Your task to perform on an android device: Search for "razer blade" on ebay.com, select the first entry, add it to the cart, then select checkout. Image 0: 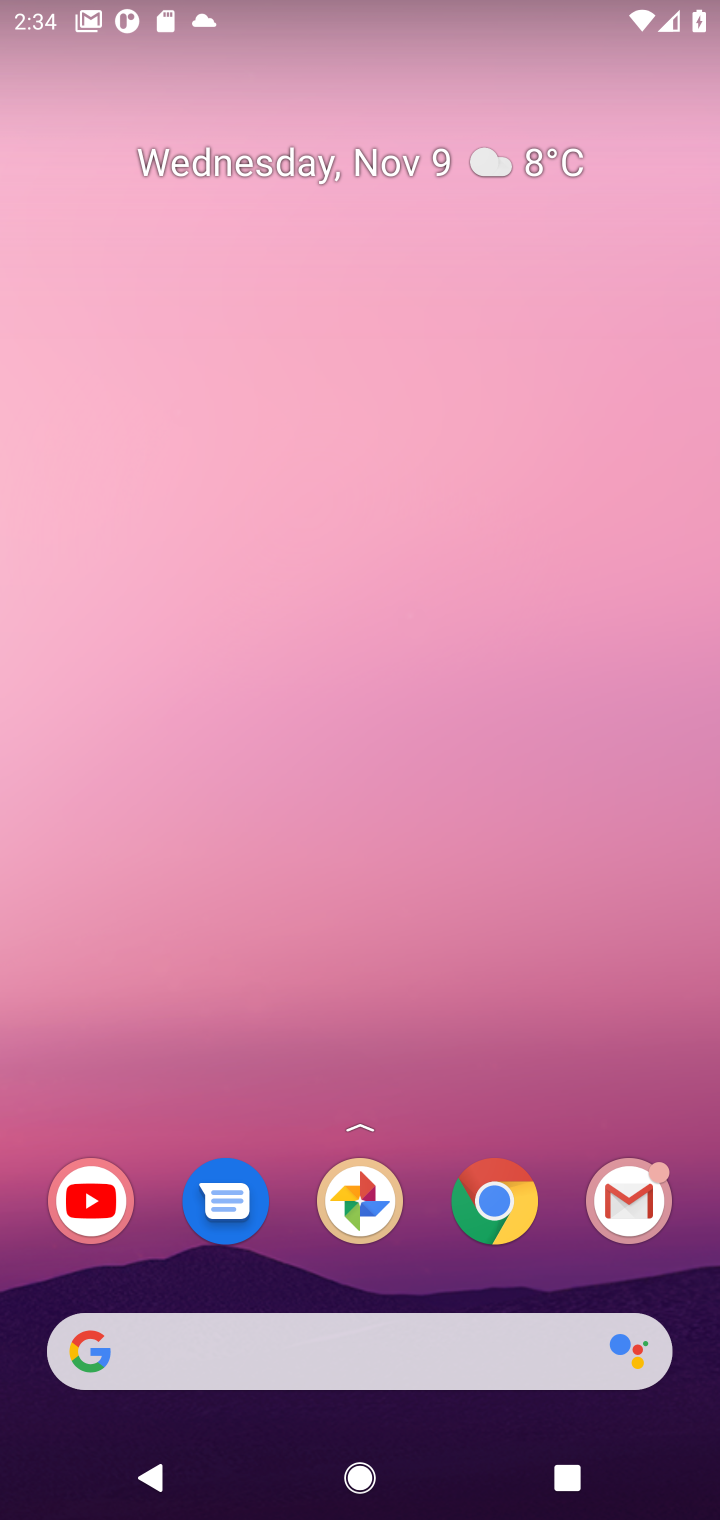
Step 0: press home button
Your task to perform on an android device: Search for "razer blade" on ebay.com, select the first entry, add it to the cart, then select checkout. Image 1: 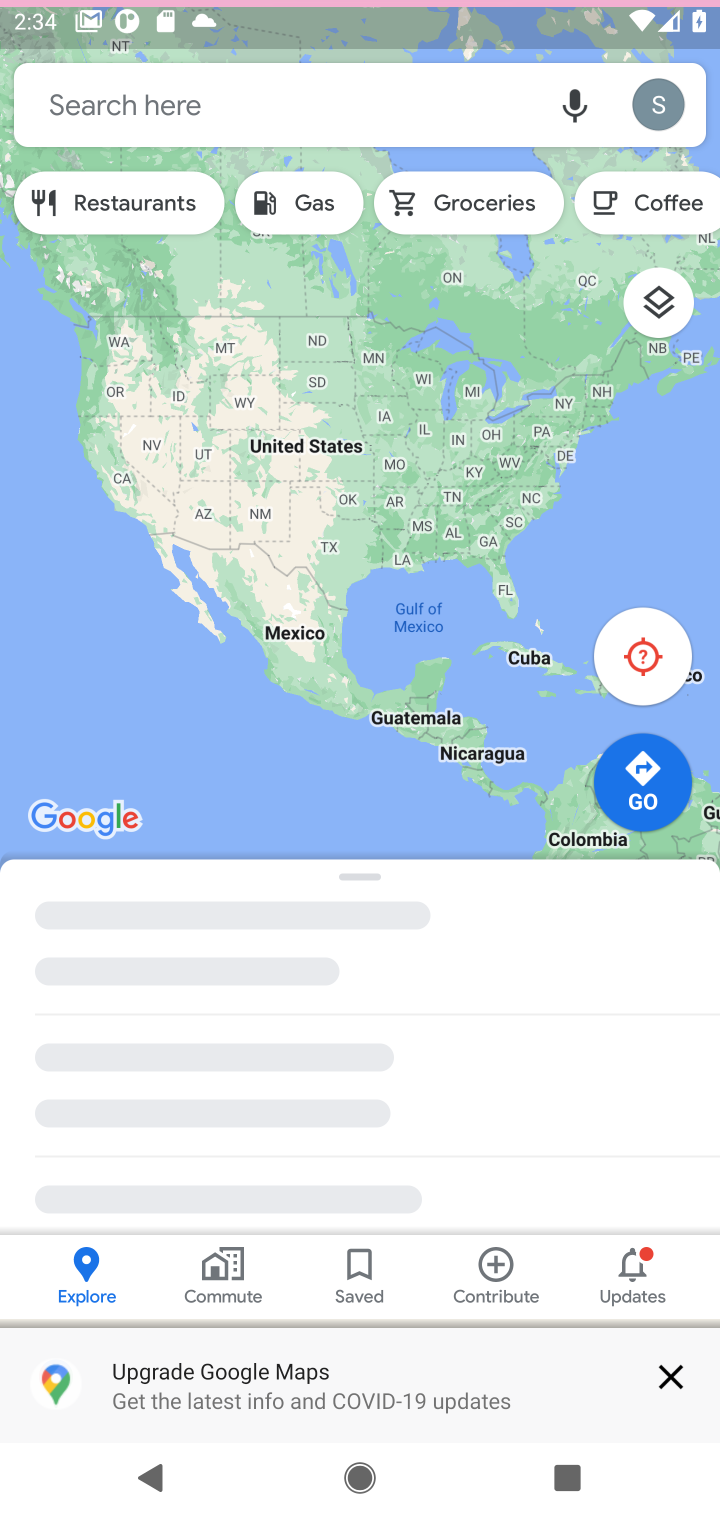
Step 1: press home button
Your task to perform on an android device: Search for "razer blade" on ebay.com, select the first entry, add it to the cart, then select checkout. Image 2: 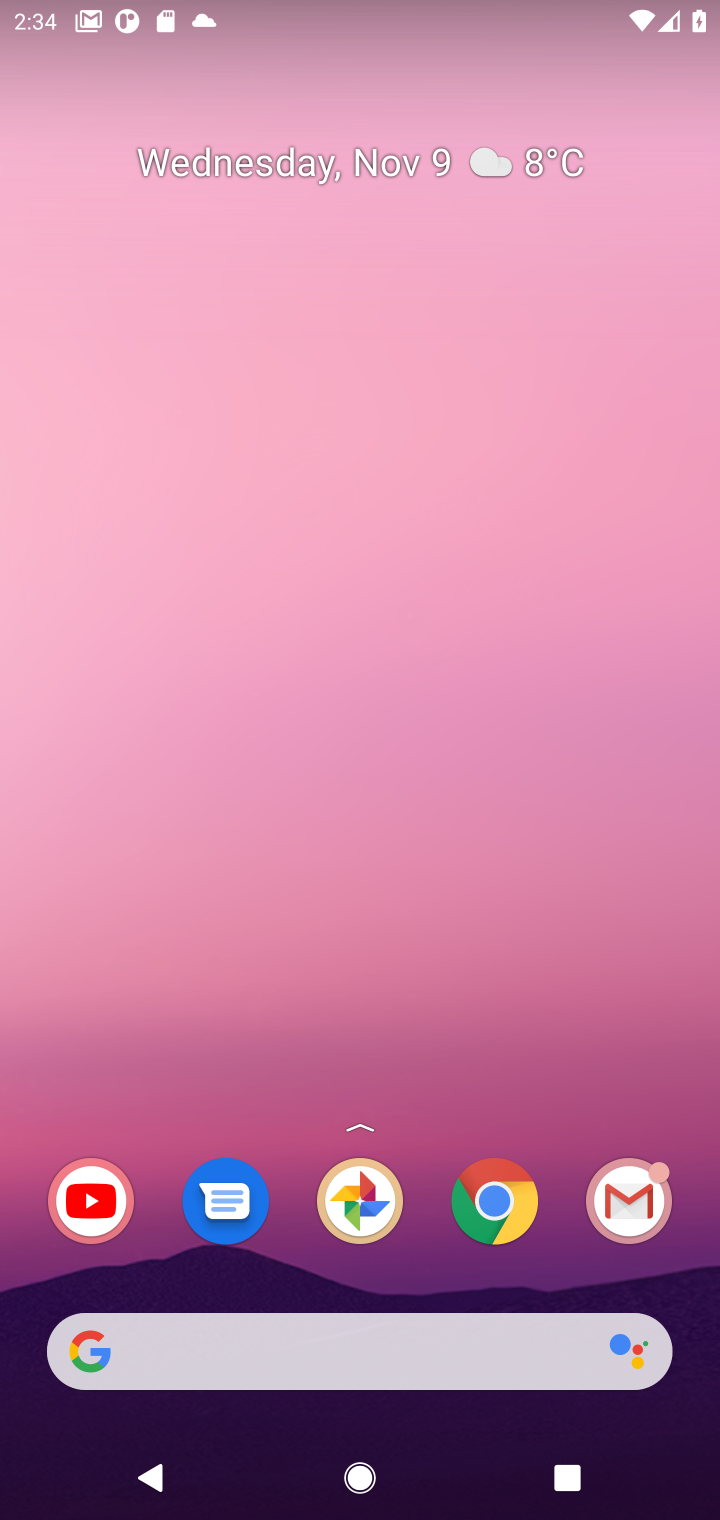
Step 2: click (308, 1348)
Your task to perform on an android device: Search for "razer blade" on ebay.com, select the first entry, add it to the cart, then select checkout. Image 3: 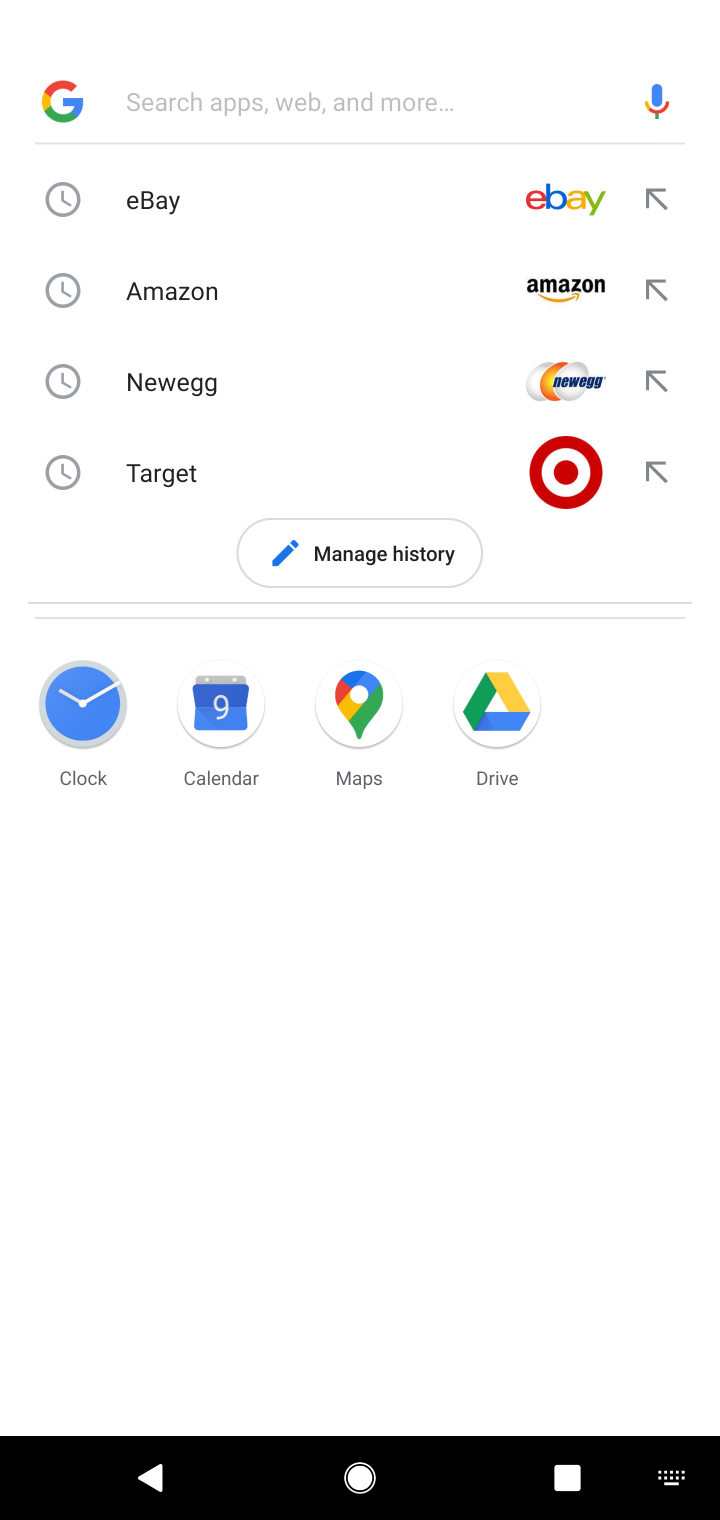
Step 3: click (235, 206)
Your task to perform on an android device: Search for "razer blade" on ebay.com, select the first entry, add it to the cart, then select checkout. Image 4: 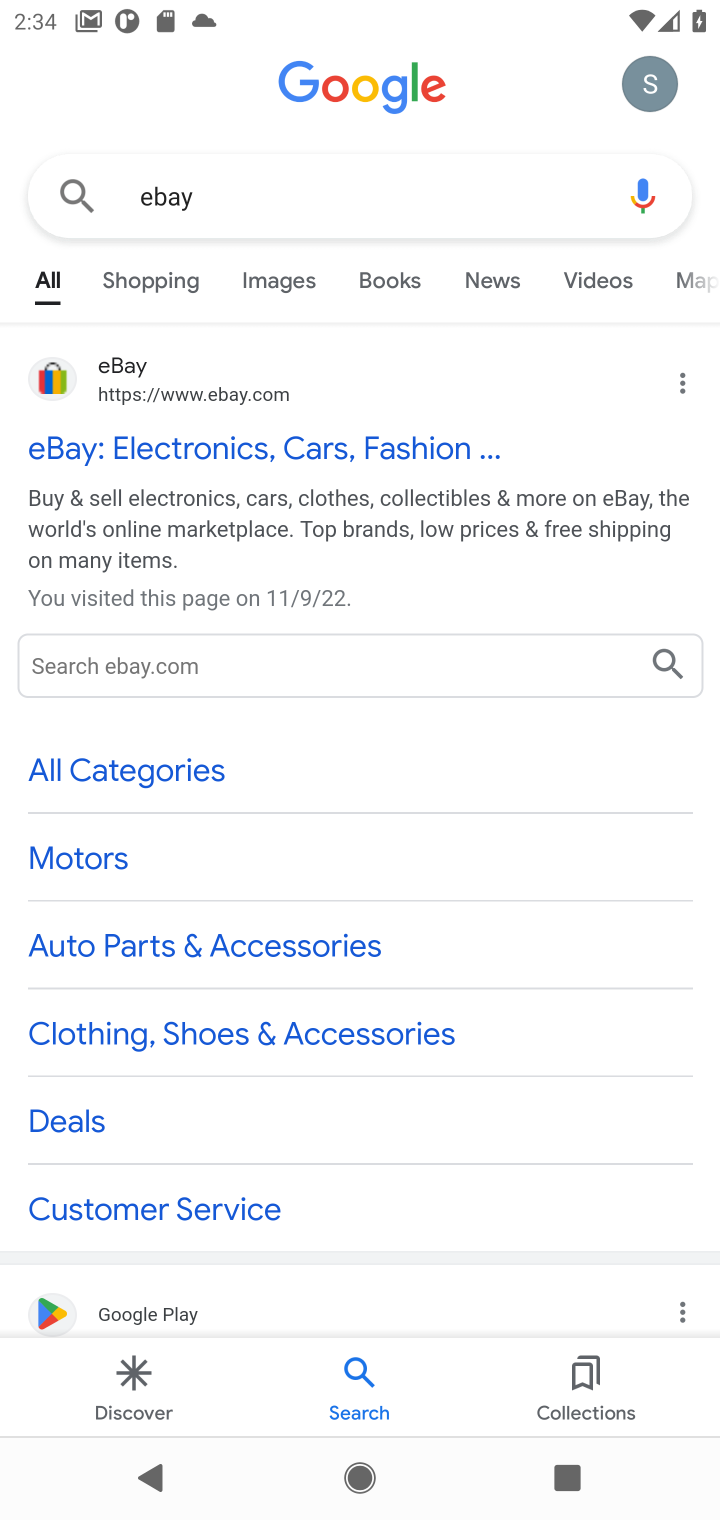
Step 4: click (94, 376)
Your task to perform on an android device: Search for "razer blade" on ebay.com, select the first entry, add it to the cart, then select checkout. Image 5: 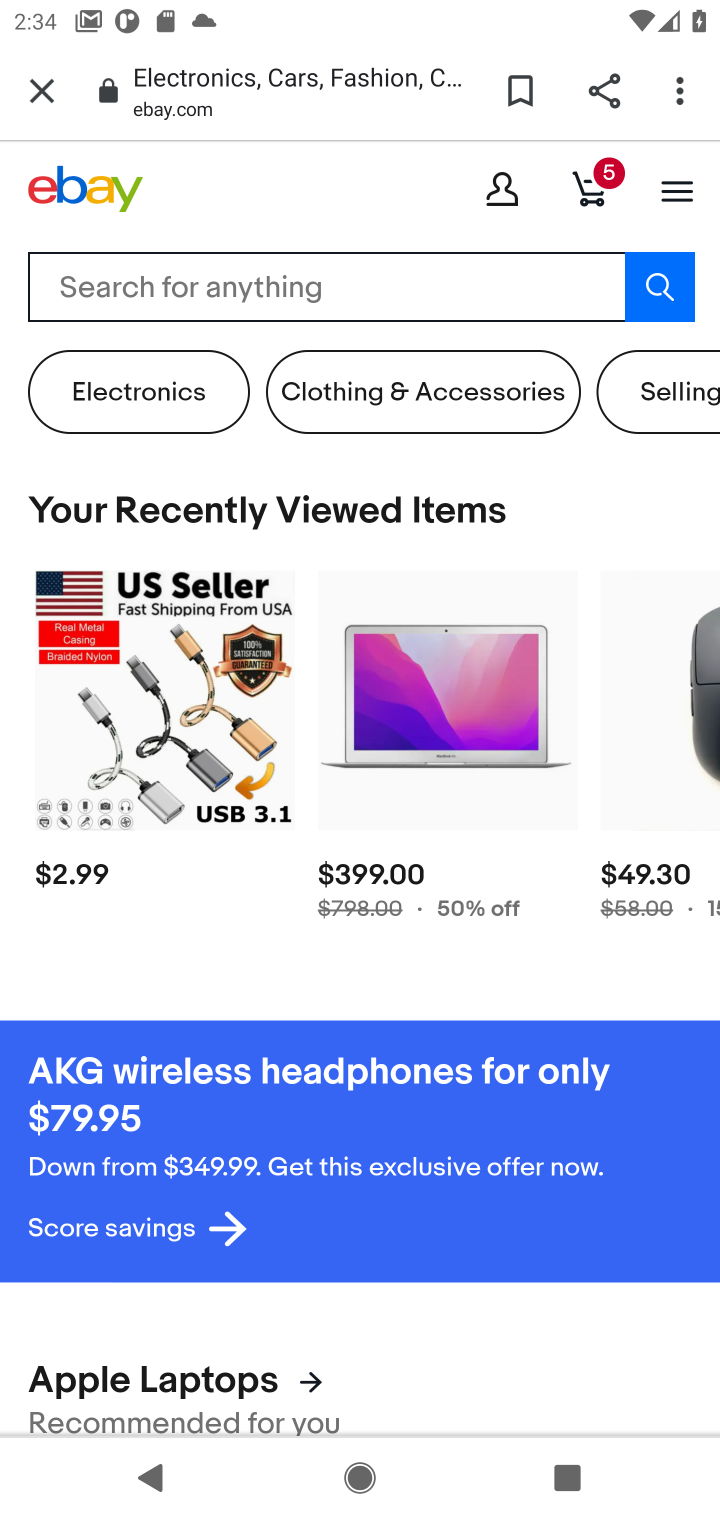
Step 5: click (204, 306)
Your task to perform on an android device: Search for "razer blade" on ebay.com, select the first entry, add it to the cart, then select checkout. Image 6: 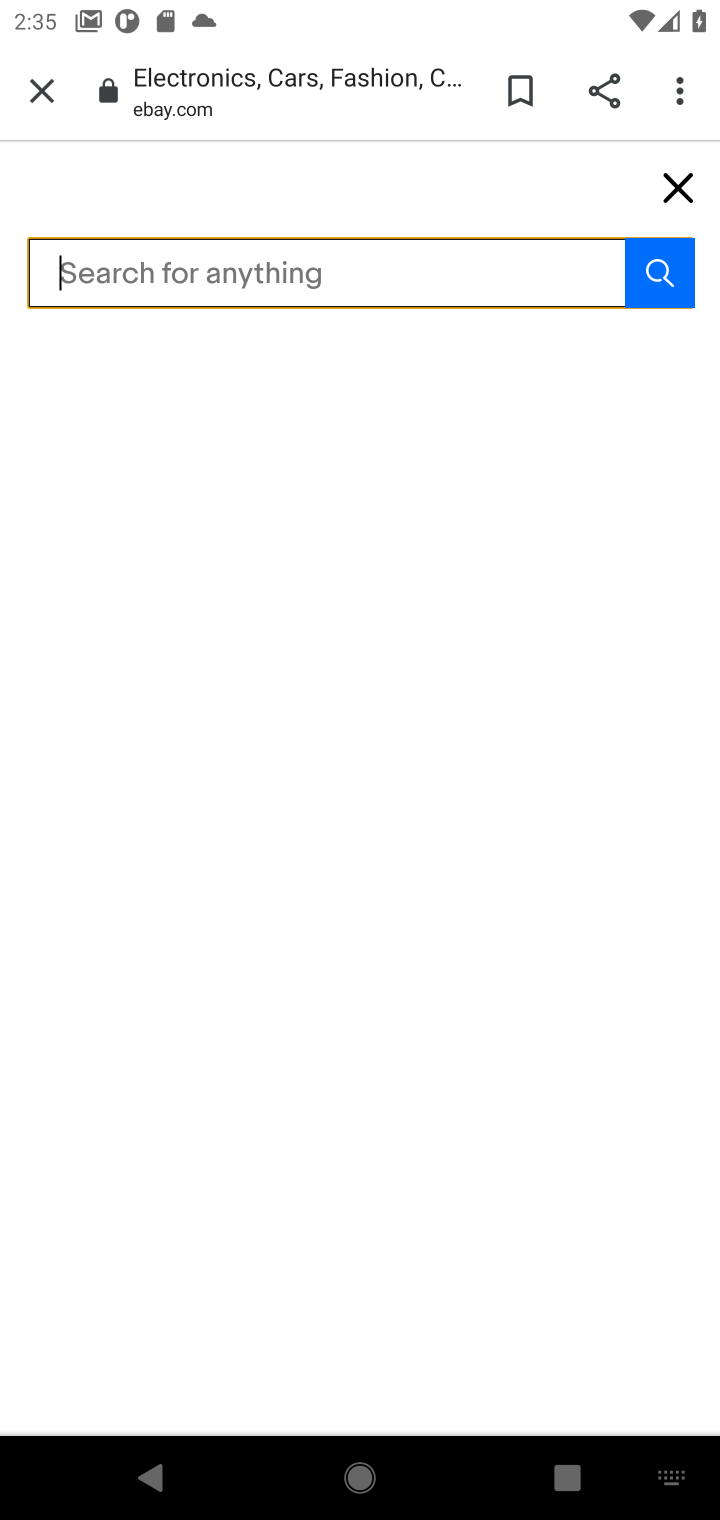
Step 6: type "razer blade"
Your task to perform on an android device: Search for "razer blade" on ebay.com, select the first entry, add it to the cart, then select checkout. Image 7: 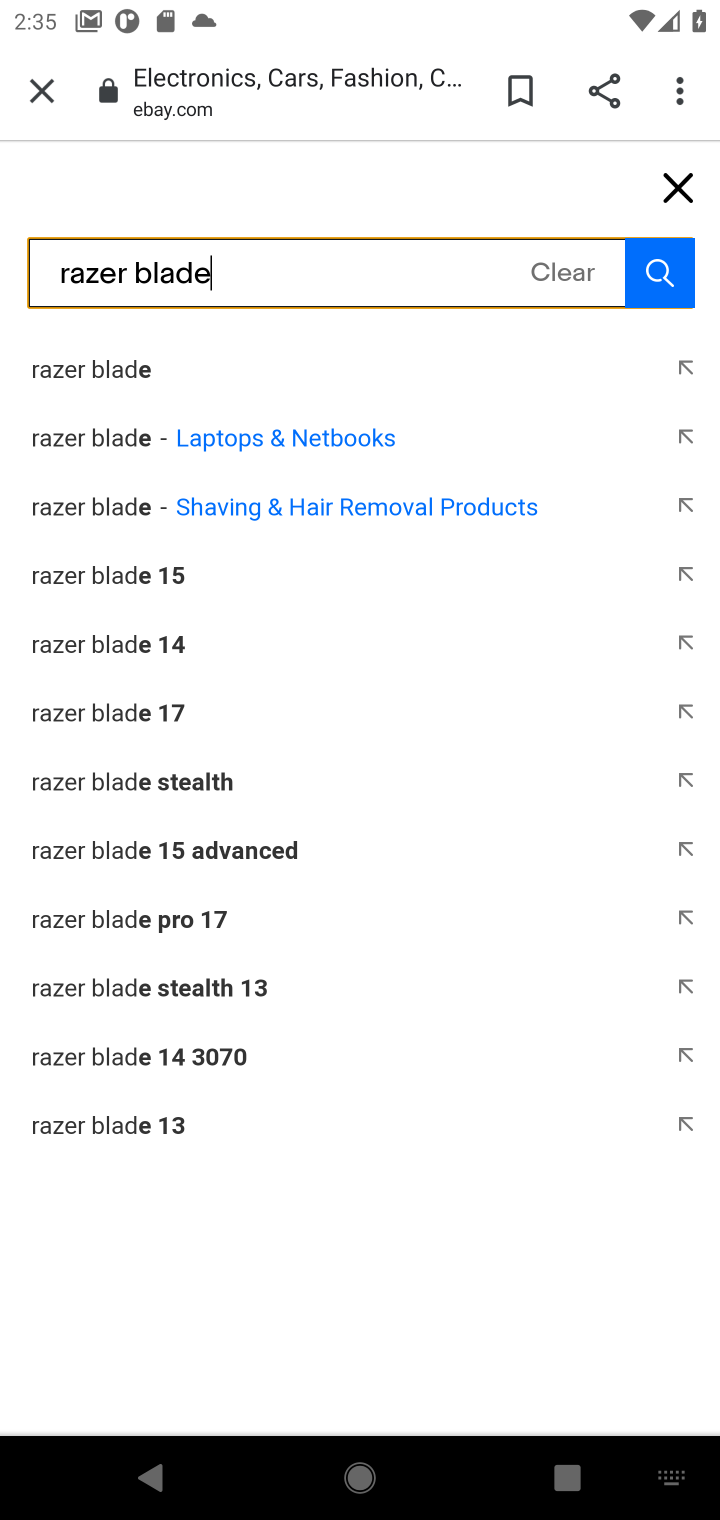
Step 7: click (85, 363)
Your task to perform on an android device: Search for "razer blade" on ebay.com, select the first entry, add it to the cart, then select checkout. Image 8: 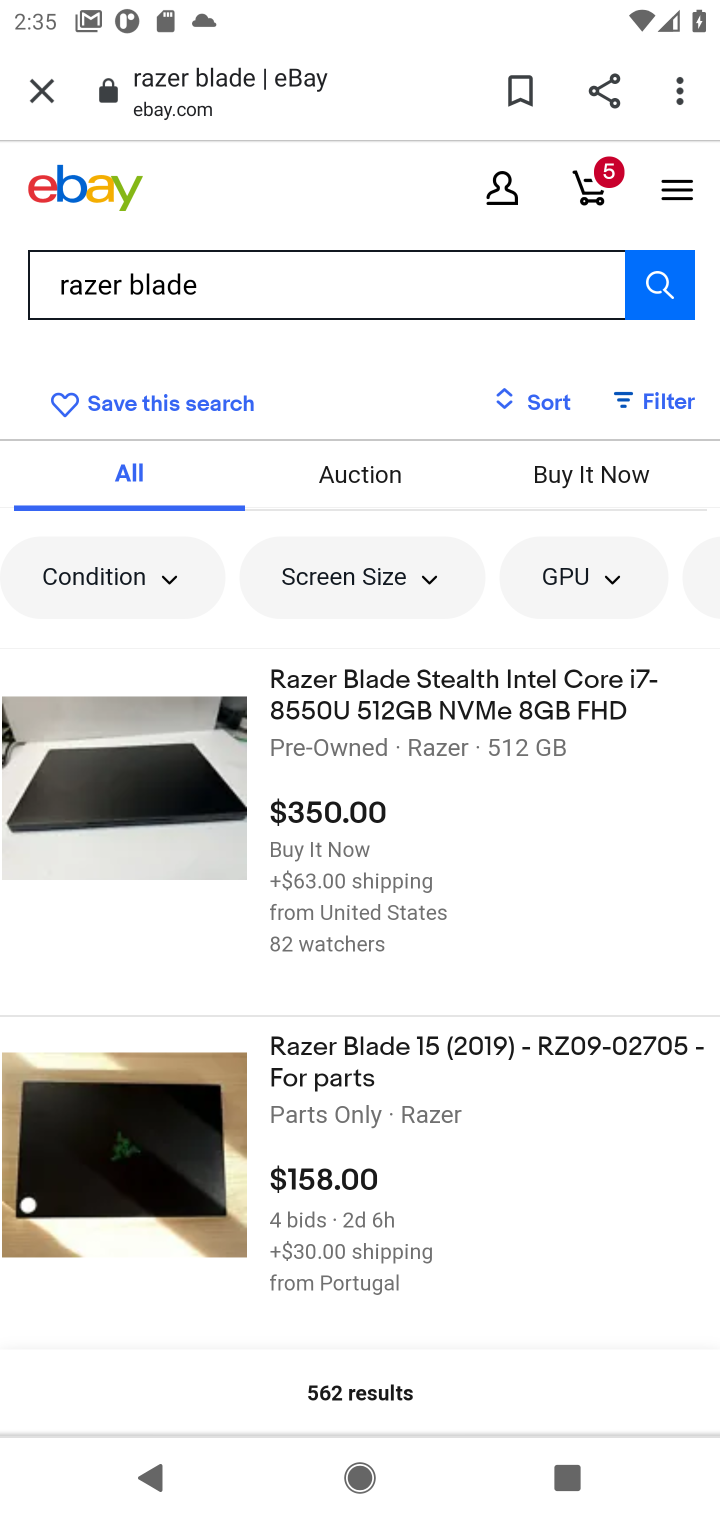
Step 8: click (323, 754)
Your task to perform on an android device: Search for "razer blade" on ebay.com, select the first entry, add it to the cart, then select checkout. Image 9: 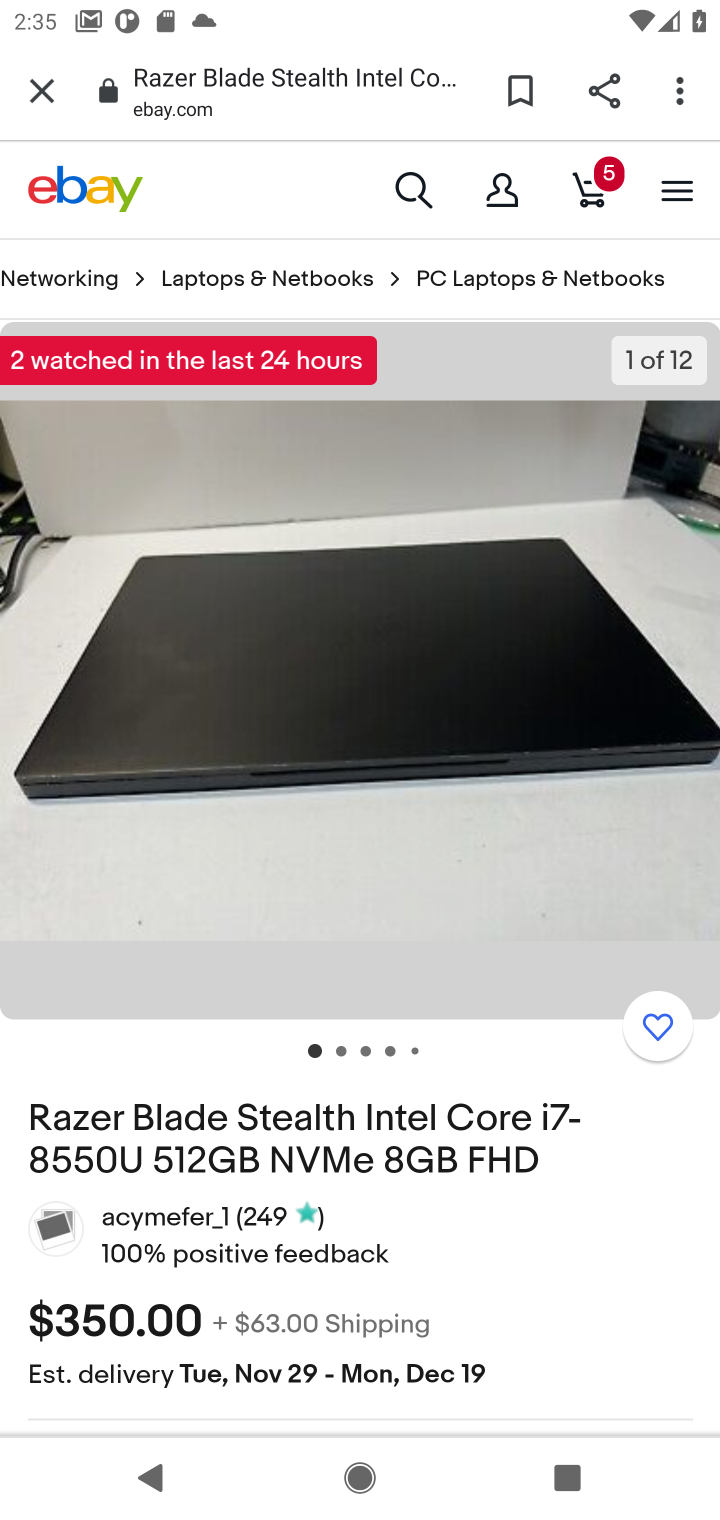
Step 9: drag from (343, 1095) to (343, 650)
Your task to perform on an android device: Search for "razer blade" on ebay.com, select the first entry, add it to the cart, then select checkout. Image 10: 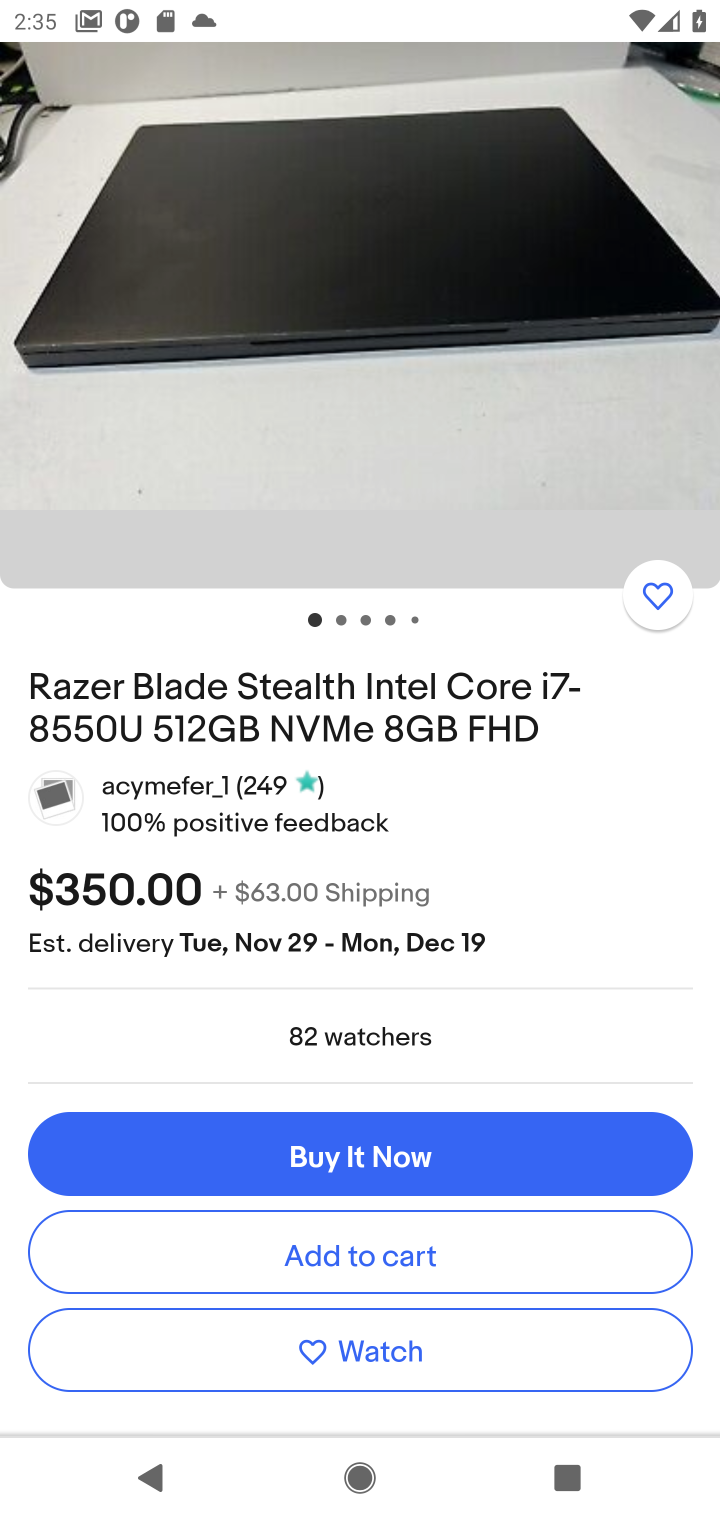
Step 10: click (338, 1252)
Your task to perform on an android device: Search for "razer blade" on ebay.com, select the first entry, add it to the cart, then select checkout. Image 11: 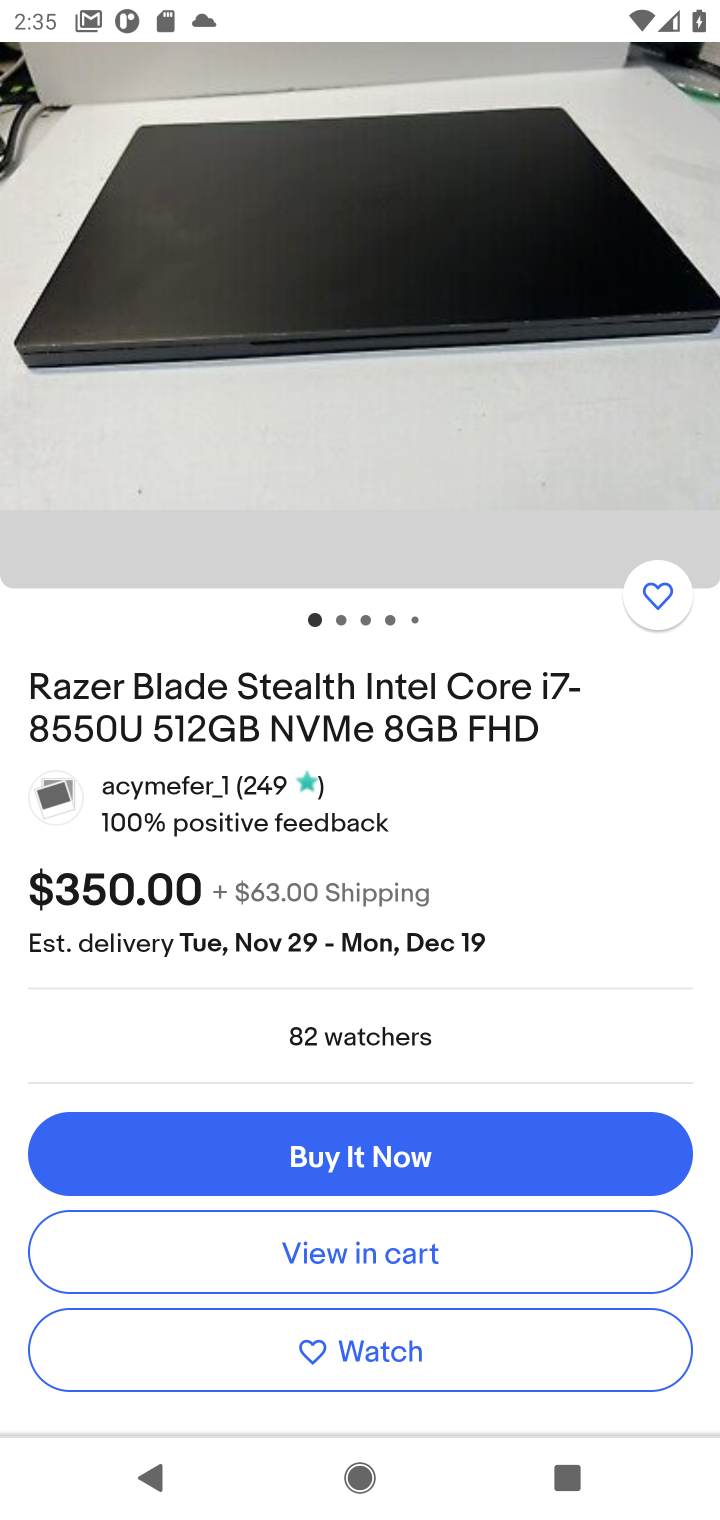
Step 11: click (330, 1255)
Your task to perform on an android device: Search for "razer blade" on ebay.com, select the first entry, add it to the cart, then select checkout. Image 12: 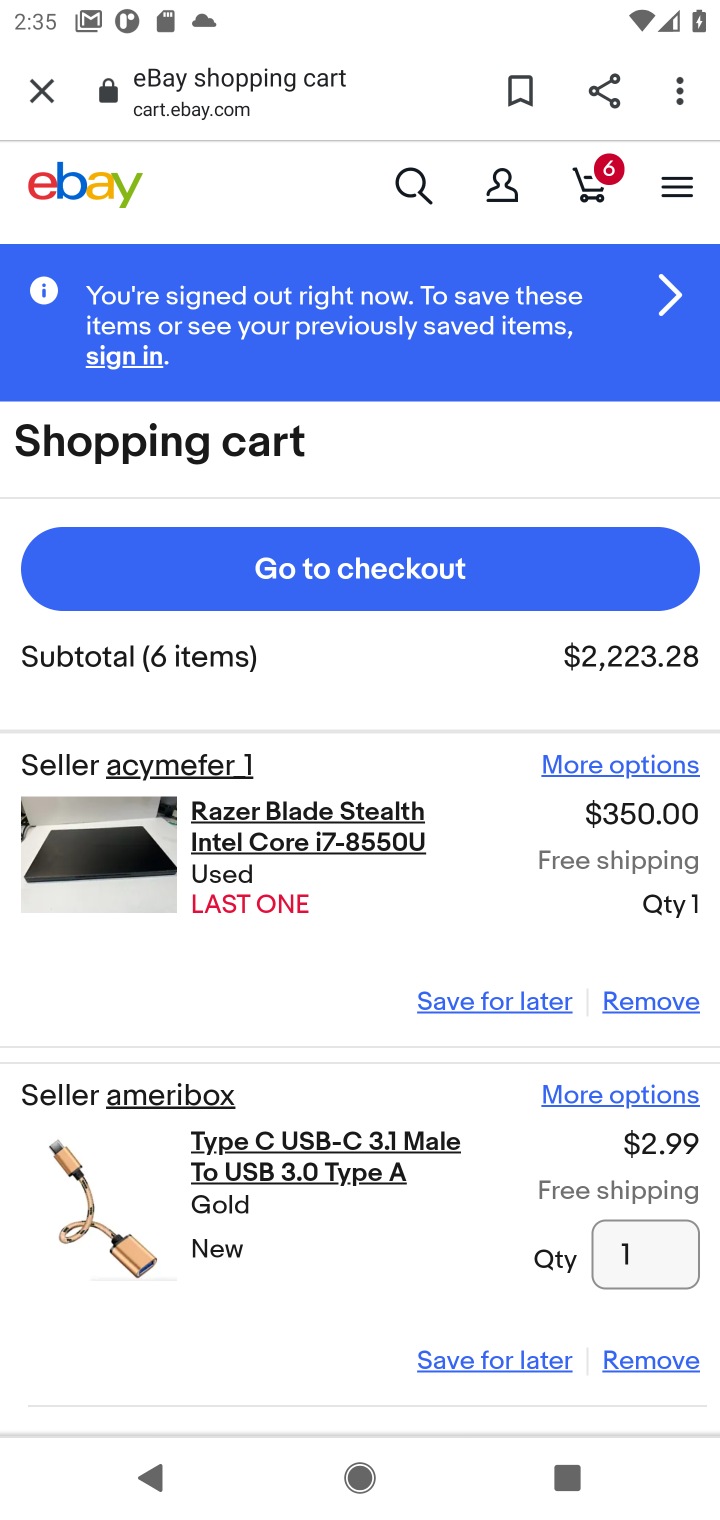
Step 12: click (451, 589)
Your task to perform on an android device: Search for "razer blade" on ebay.com, select the first entry, add it to the cart, then select checkout. Image 13: 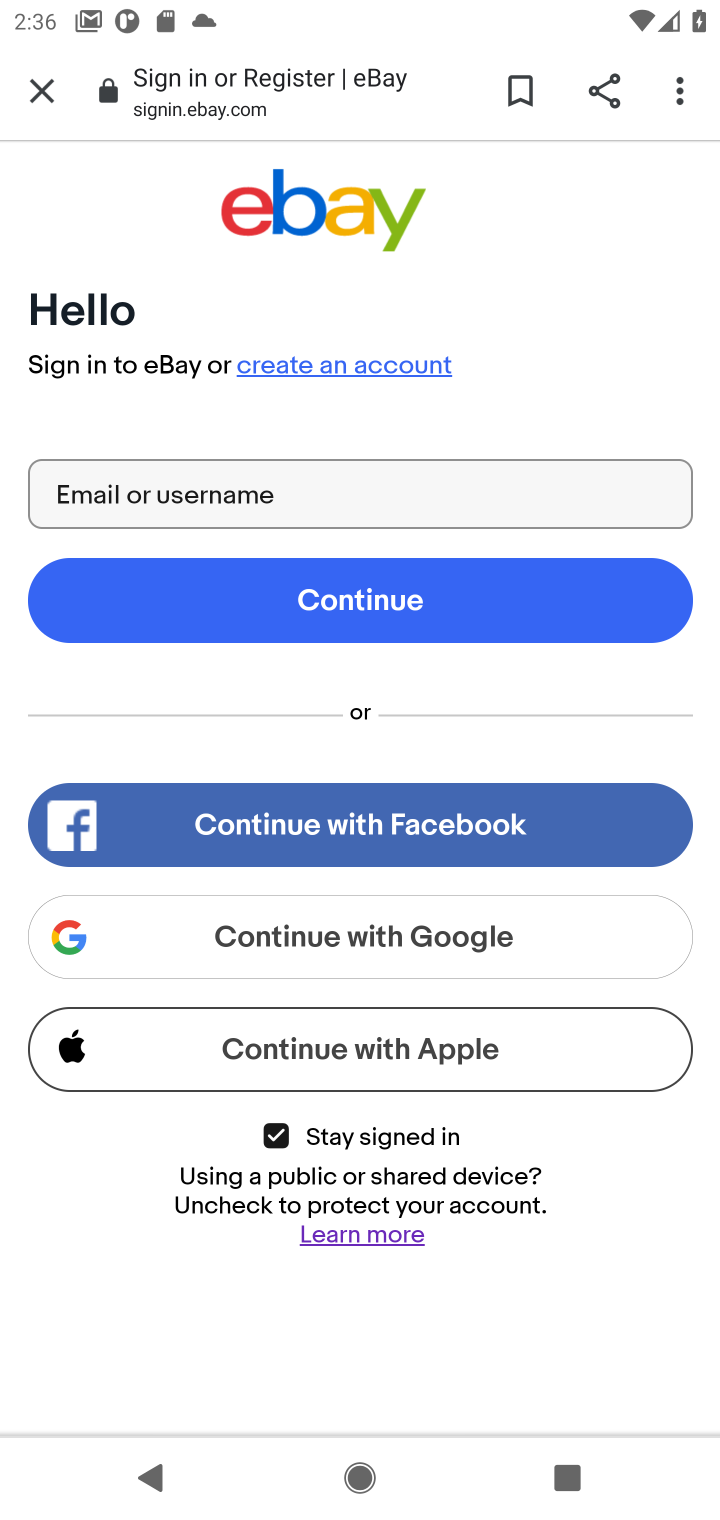
Step 13: task complete